Your task to perform on an android device: Clear all items from cart on amazon. Add "lenovo thinkpad" to the cart on amazon Image 0: 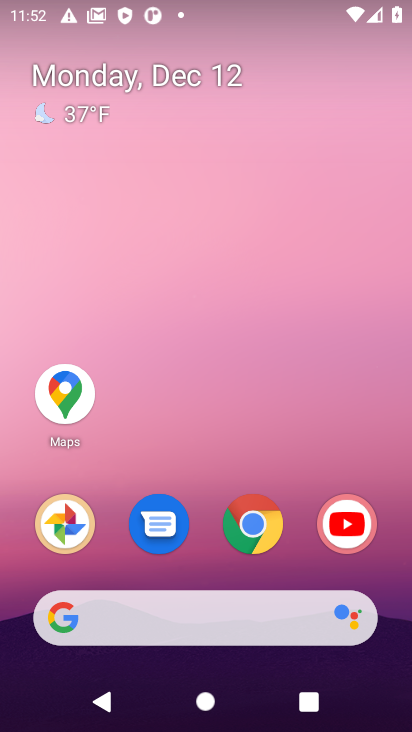
Step 0: click (251, 532)
Your task to perform on an android device: Clear all items from cart on amazon. Add "lenovo thinkpad" to the cart on amazon Image 1: 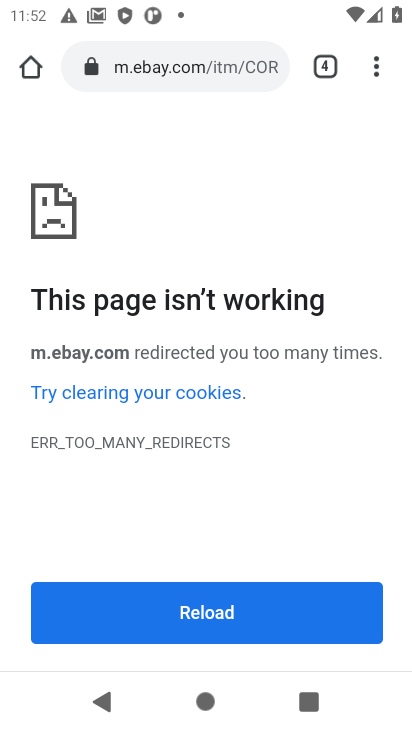
Step 1: click (158, 69)
Your task to perform on an android device: Clear all items from cart on amazon. Add "lenovo thinkpad" to the cart on amazon Image 2: 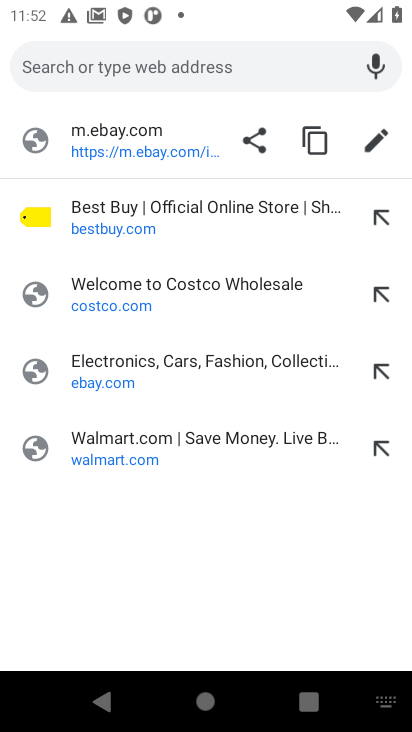
Step 2: type "amazon.com"
Your task to perform on an android device: Clear all items from cart on amazon. Add "lenovo thinkpad" to the cart on amazon Image 3: 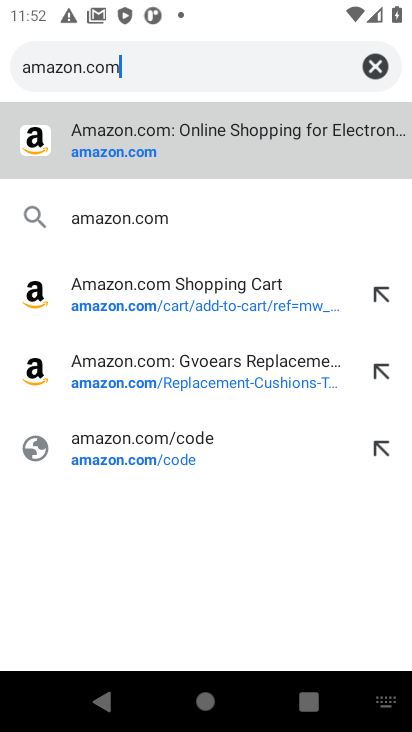
Step 3: click (108, 155)
Your task to perform on an android device: Clear all items from cart on amazon. Add "lenovo thinkpad" to the cart on amazon Image 4: 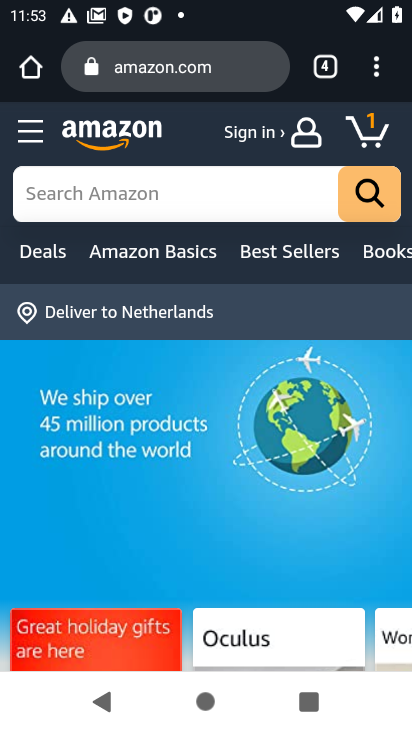
Step 4: click (371, 133)
Your task to perform on an android device: Clear all items from cart on amazon. Add "lenovo thinkpad" to the cart on amazon Image 5: 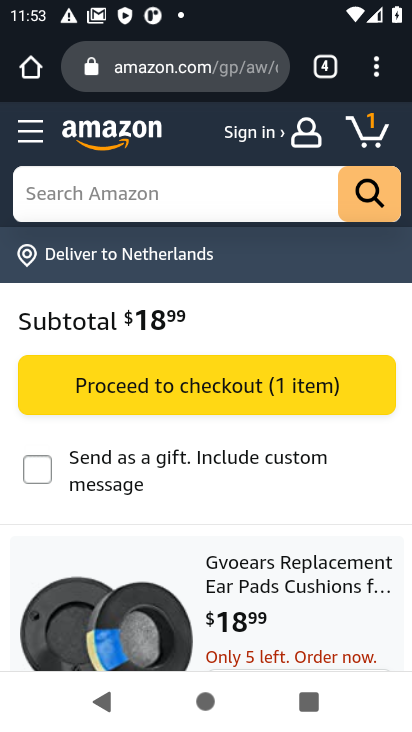
Step 5: drag from (301, 476) to (287, 186)
Your task to perform on an android device: Clear all items from cart on amazon. Add "lenovo thinkpad" to the cart on amazon Image 6: 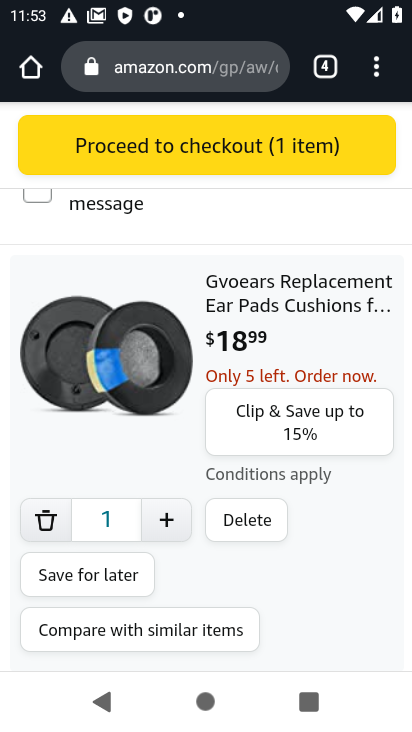
Step 6: click (249, 513)
Your task to perform on an android device: Clear all items from cart on amazon. Add "lenovo thinkpad" to the cart on amazon Image 7: 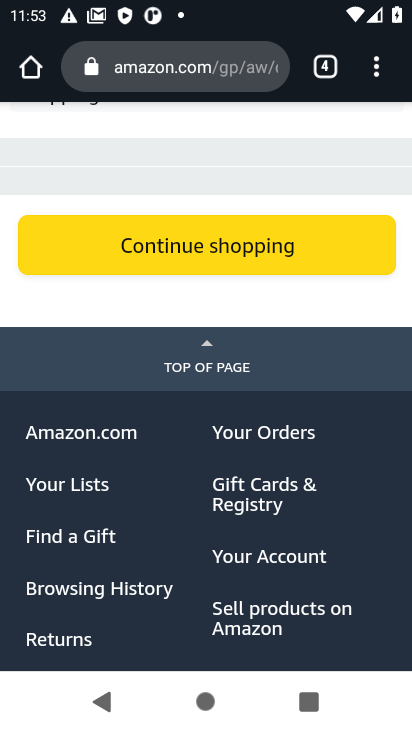
Step 7: drag from (290, 321) to (293, 566)
Your task to perform on an android device: Clear all items from cart on amazon. Add "lenovo thinkpad" to the cart on amazon Image 8: 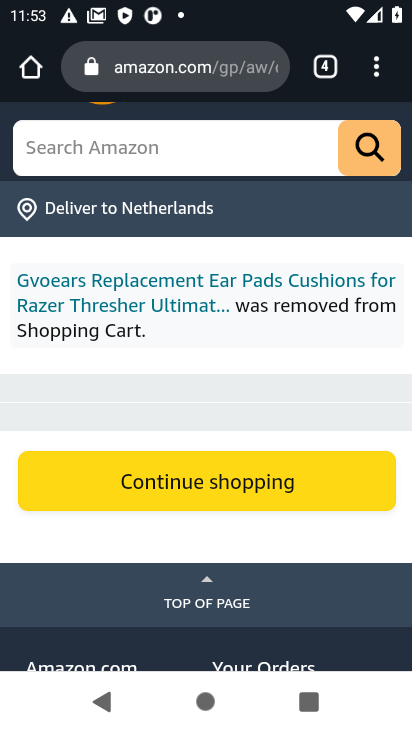
Step 8: click (104, 145)
Your task to perform on an android device: Clear all items from cart on amazon. Add "lenovo thinkpad" to the cart on amazon Image 9: 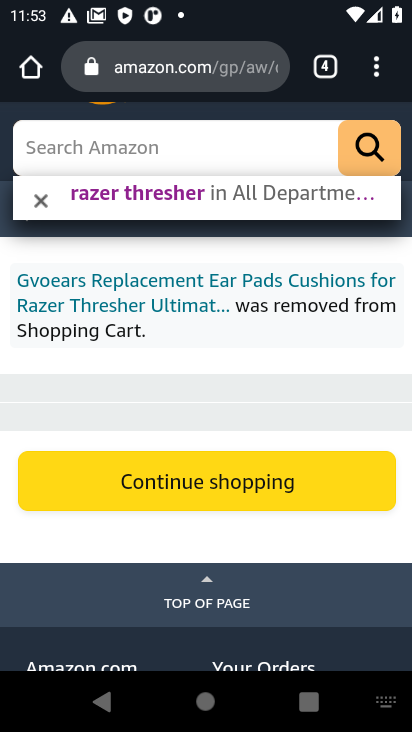
Step 9: type "lenovo thinkpad"
Your task to perform on an android device: Clear all items from cart on amazon. Add "lenovo thinkpad" to the cart on amazon Image 10: 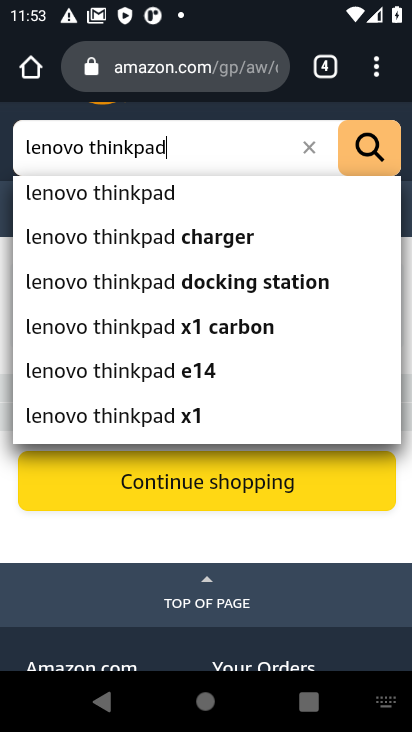
Step 10: click (139, 197)
Your task to perform on an android device: Clear all items from cart on amazon. Add "lenovo thinkpad" to the cart on amazon Image 11: 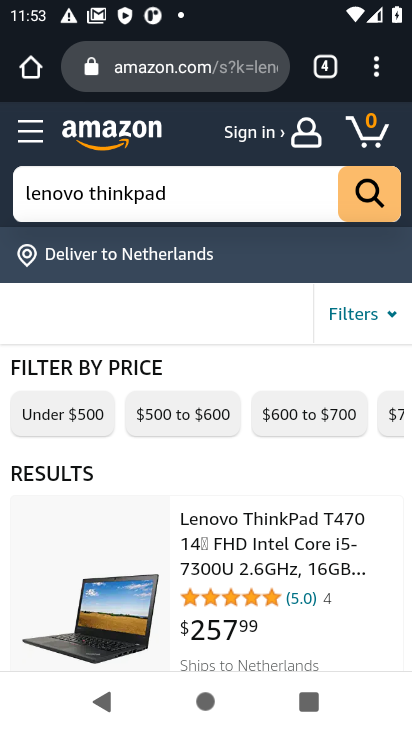
Step 11: drag from (199, 537) to (191, 300)
Your task to perform on an android device: Clear all items from cart on amazon. Add "lenovo thinkpad" to the cart on amazon Image 12: 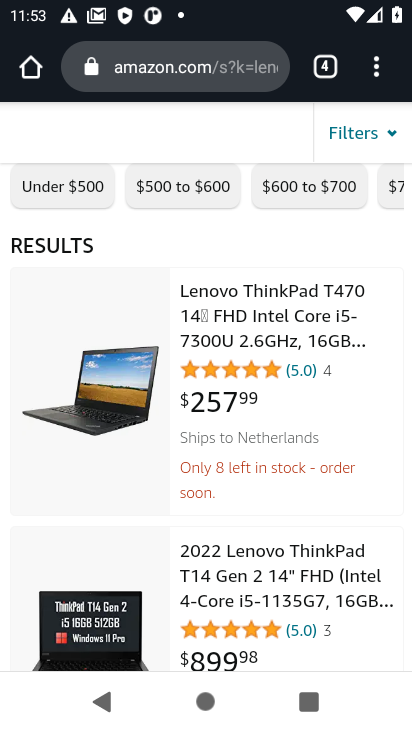
Step 12: click (229, 324)
Your task to perform on an android device: Clear all items from cart on amazon. Add "lenovo thinkpad" to the cart on amazon Image 13: 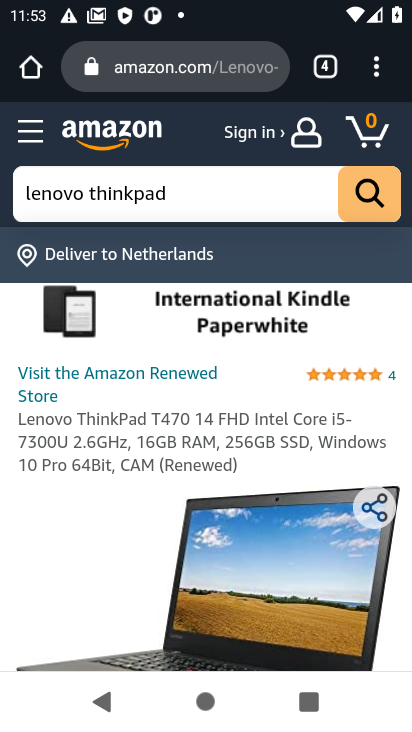
Step 13: drag from (150, 496) to (168, 181)
Your task to perform on an android device: Clear all items from cart on amazon. Add "lenovo thinkpad" to the cart on amazon Image 14: 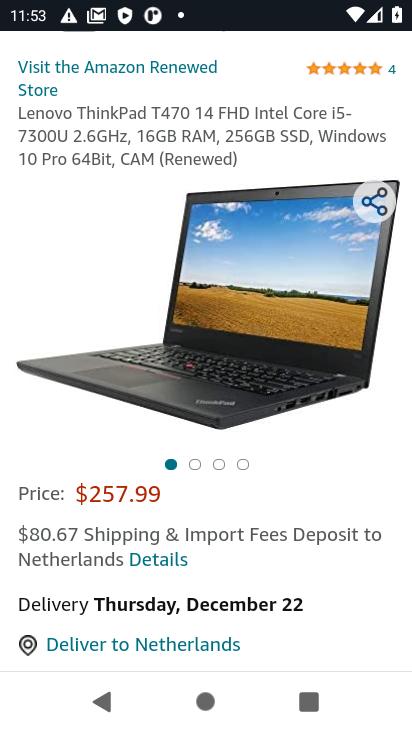
Step 14: drag from (155, 502) to (149, 156)
Your task to perform on an android device: Clear all items from cart on amazon. Add "lenovo thinkpad" to the cart on amazon Image 15: 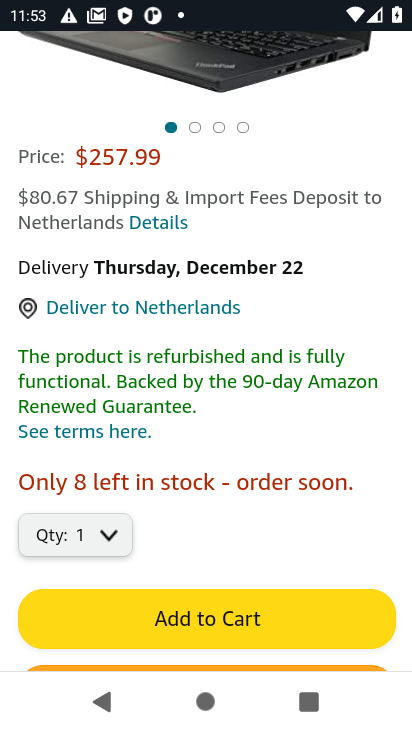
Step 15: drag from (130, 440) to (148, 201)
Your task to perform on an android device: Clear all items from cart on amazon. Add "lenovo thinkpad" to the cart on amazon Image 16: 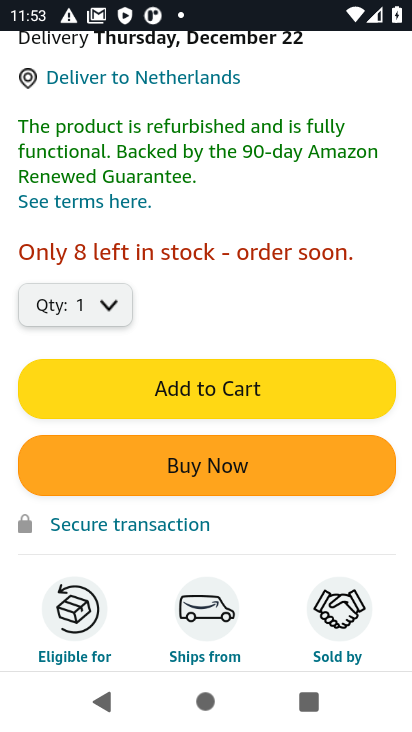
Step 16: click (178, 394)
Your task to perform on an android device: Clear all items from cart on amazon. Add "lenovo thinkpad" to the cart on amazon Image 17: 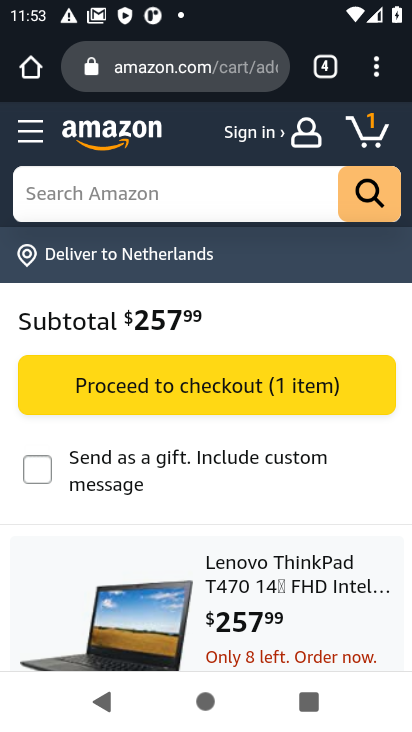
Step 17: task complete